Your task to perform on an android device: Open privacy settings Image 0: 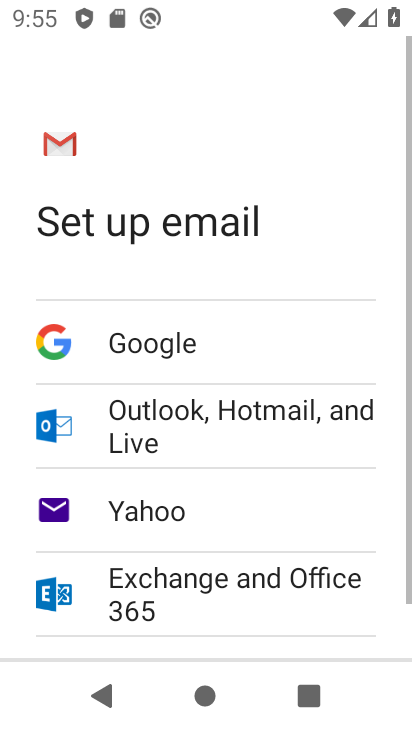
Step 0: press back button
Your task to perform on an android device: Open privacy settings Image 1: 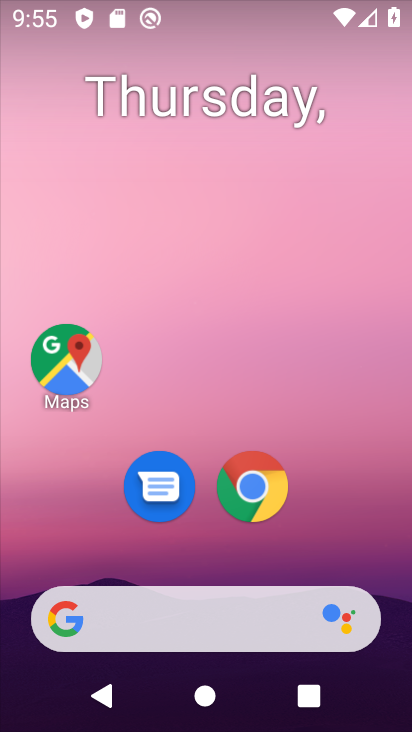
Step 1: drag from (211, 537) to (318, 0)
Your task to perform on an android device: Open privacy settings Image 2: 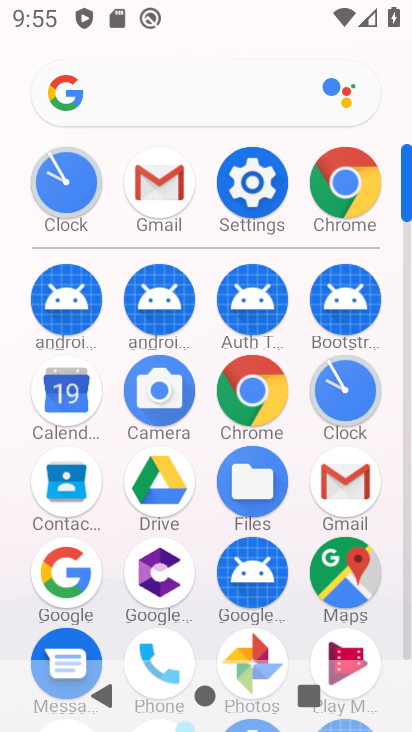
Step 2: click (262, 172)
Your task to perform on an android device: Open privacy settings Image 3: 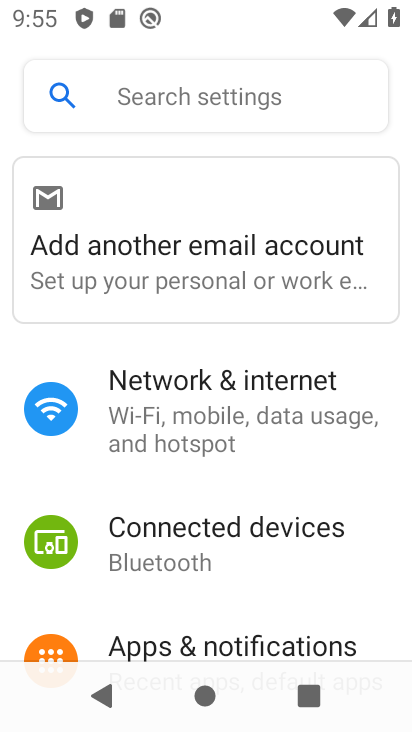
Step 3: drag from (170, 566) to (228, 82)
Your task to perform on an android device: Open privacy settings Image 4: 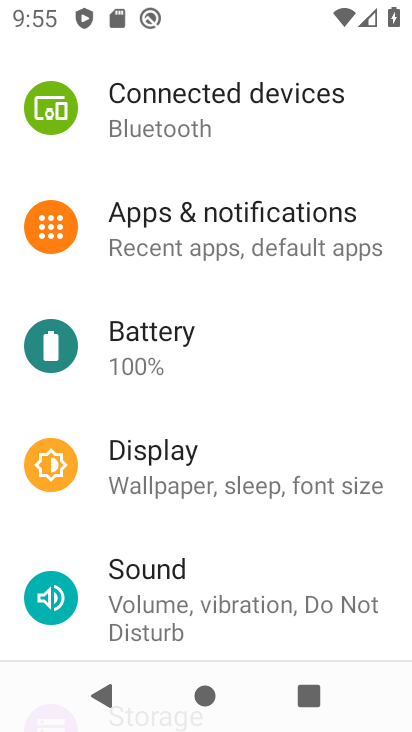
Step 4: drag from (187, 614) to (258, 128)
Your task to perform on an android device: Open privacy settings Image 5: 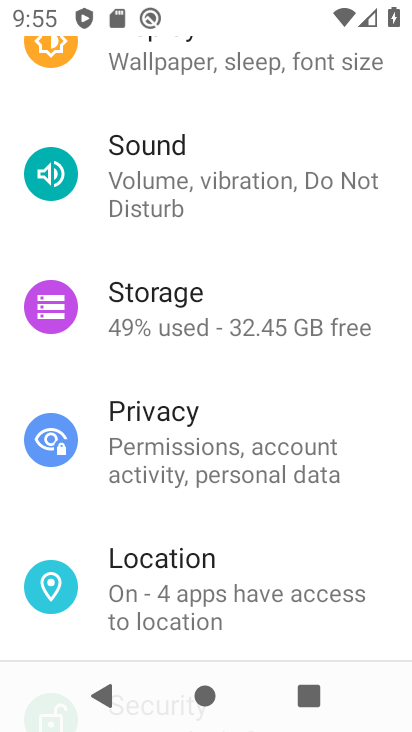
Step 5: click (211, 450)
Your task to perform on an android device: Open privacy settings Image 6: 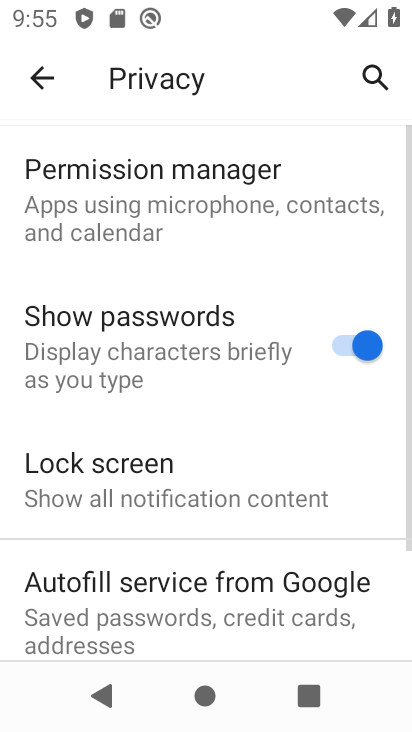
Step 6: task complete